Your task to perform on an android device: turn on the 24-hour format for clock Image 0: 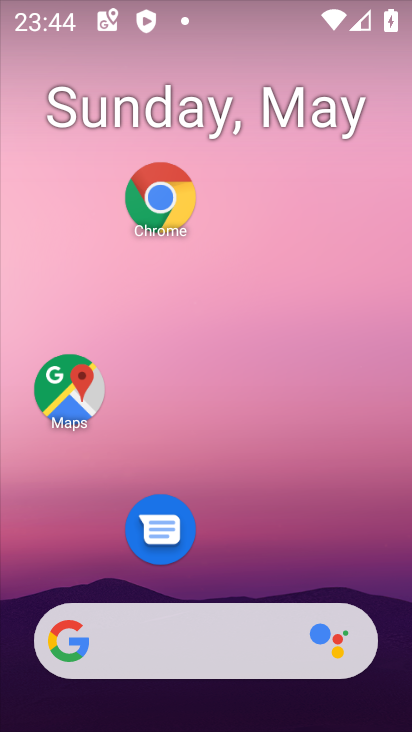
Step 0: drag from (335, 537) to (335, 180)
Your task to perform on an android device: turn on the 24-hour format for clock Image 1: 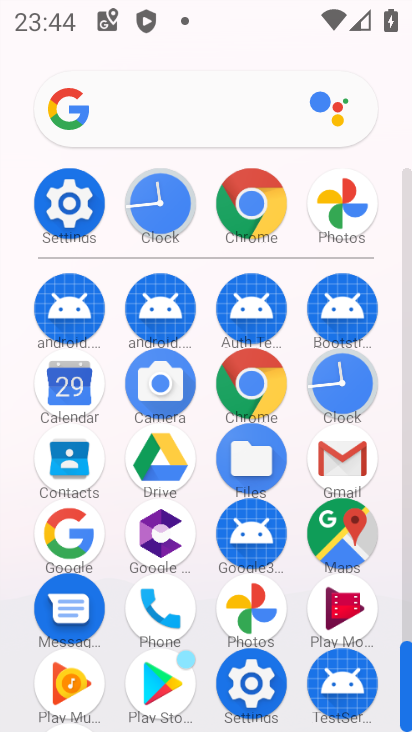
Step 1: click (159, 234)
Your task to perform on an android device: turn on the 24-hour format for clock Image 2: 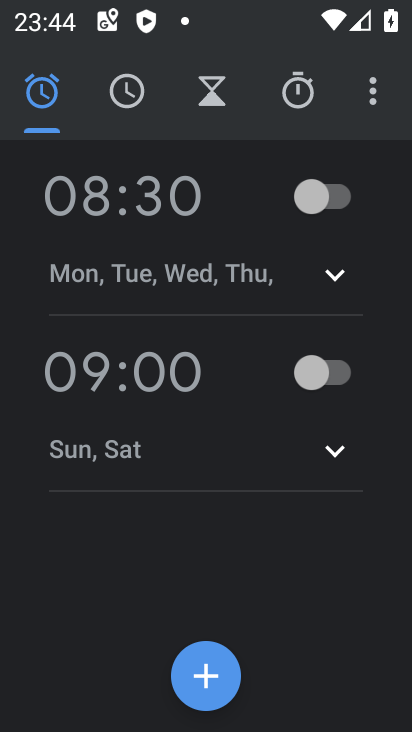
Step 2: click (367, 75)
Your task to perform on an android device: turn on the 24-hour format for clock Image 3: 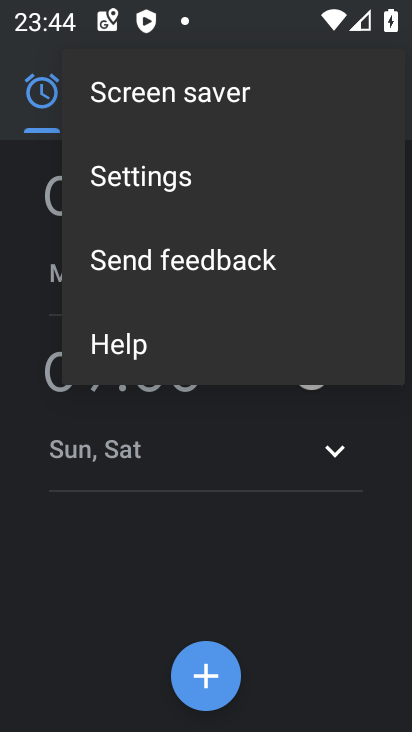
Step 3: click (166, 201)
Your task to perform on an android device: turn on the 24-hour format for clock Image 4: 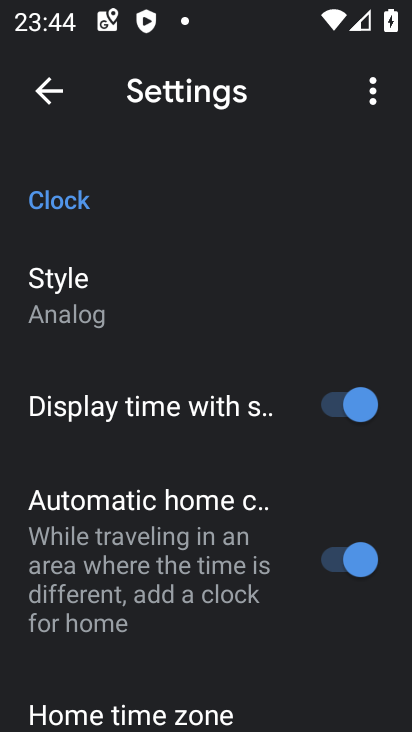
Step 4: drag from (229, 597) to (156, 224)
Your task to perform on an android device: turn on the 24-hour format for clock Image 5: 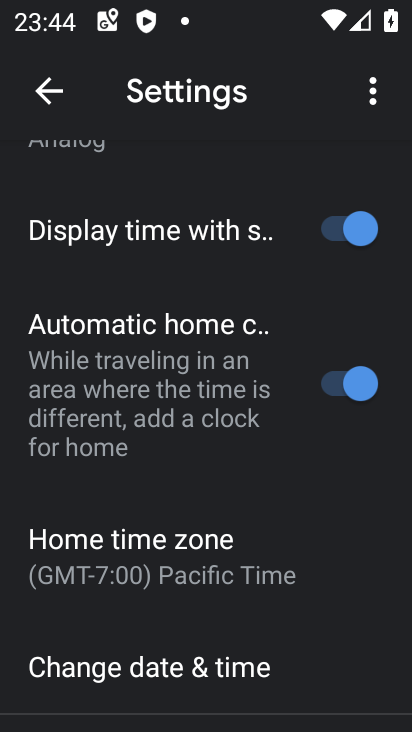
Step 5: click (181, 681)
Your task to perform on an android device: turn on the 24-hour format for clock Image 6: 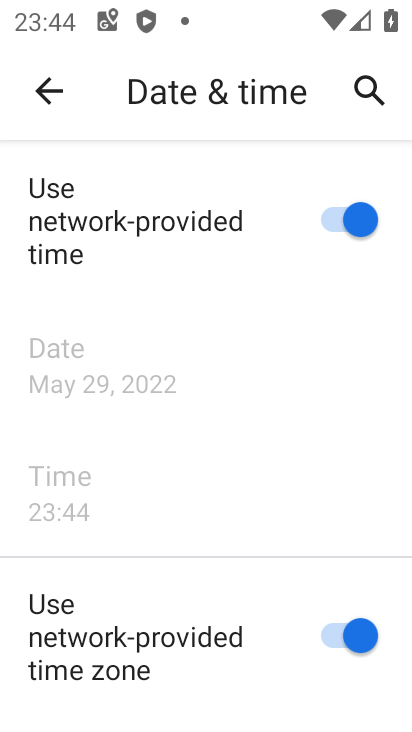
Step 6: drag from (236, 645) to (247, 340)
Your task to perform on an android device: turn on the 24-hour format for clock Image 7: 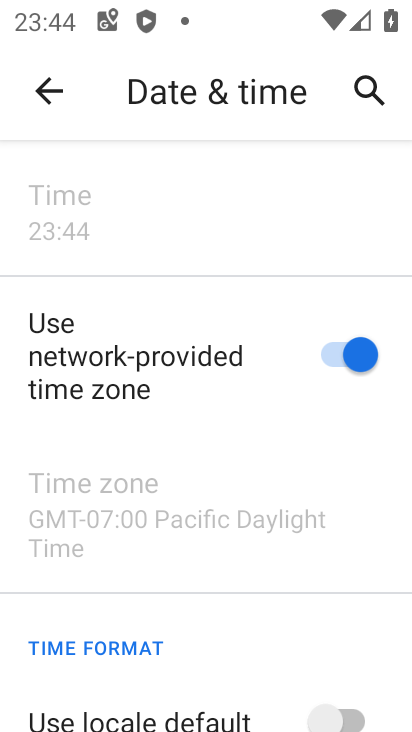
Step 7: drag from (281, 631) to (295, 286)
Your task to perform on an android device: turn on the 24-hour format for clock Image 8: 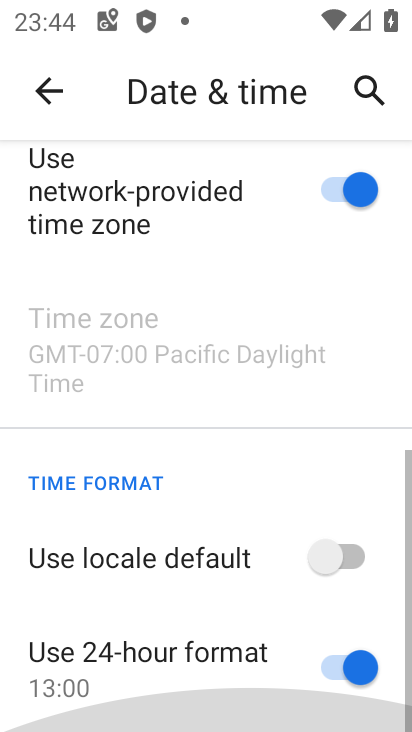
Step 8: click (295, 286)
Your task to perform on an android device: turn on the 24-hour format for clock Image 9: 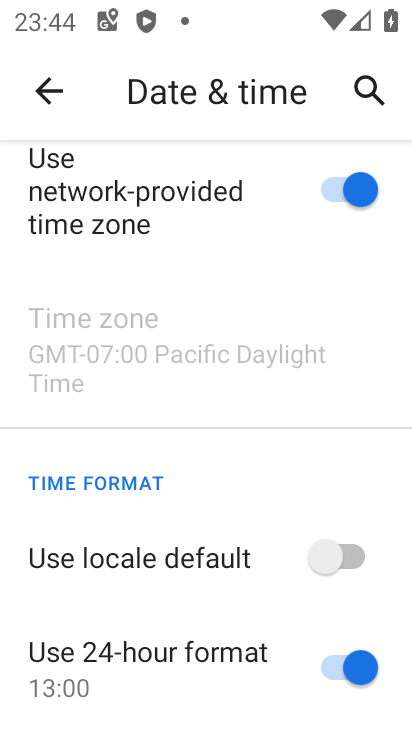
Step 9: task complete